Your task to perform on an android device: turn off notifications settings in the gmail app Image 0: 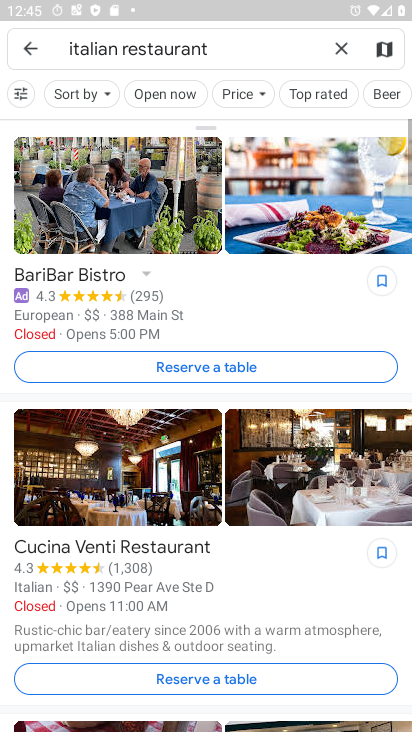
Step 0: press home button
Your task to perform on an android device: turn off notifications settings in the gmail app Image 1: 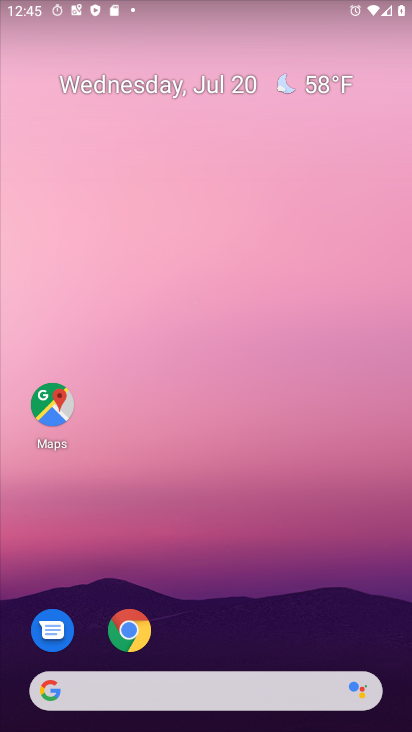
Step 1: drag from (204, 681) to (264, 240)
Your task to perform on an android device: turn off notifications settings in the gmail app Image 2: 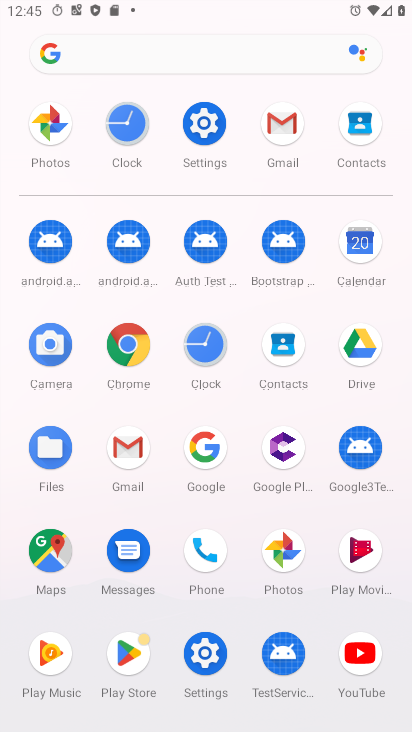
Step 2: click (280, 126)
Your task to perform on an android device: turn off notifications settings in the gmail app Image 3: 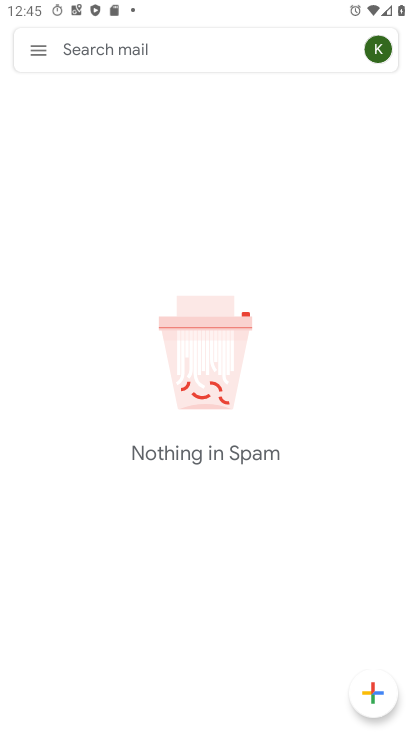
Step 3: click (43, 46)
Your task to perform on an android device: turn off notifications settings in the gmail app Image 4: 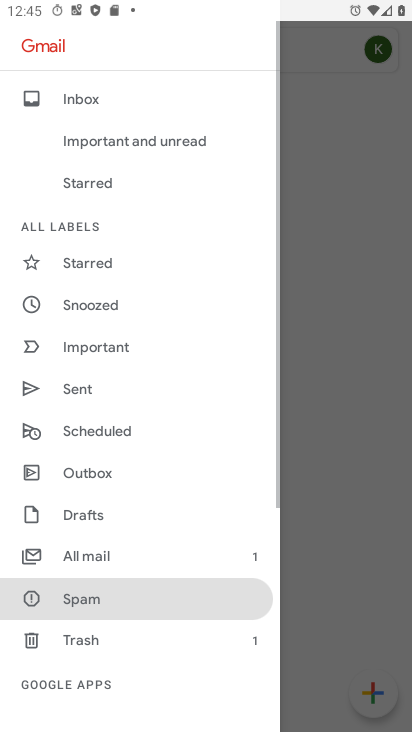
Step 4: drag from (138, 645) to (207, 115)
Your task to perform on an android device: turn off notifications settings in the gmail app Image 5: 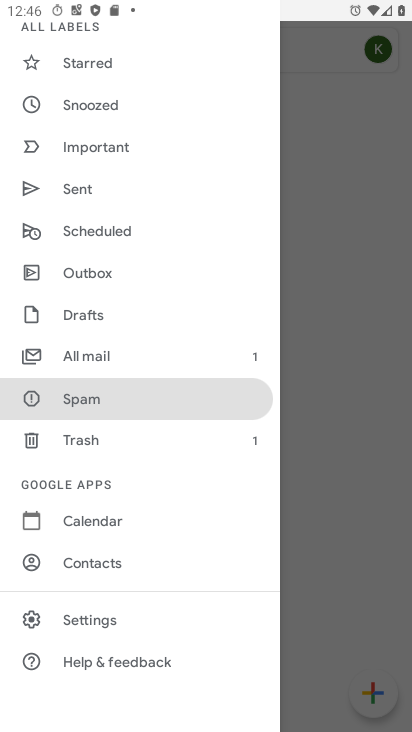
Step 5: click (101, 621)
Your task to perform on an android device: turn off notifications settings in the gmail app Image 6: 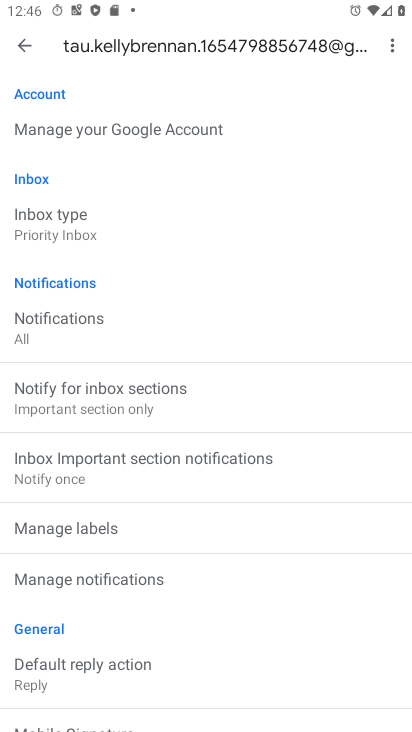
Step 6: click (70, 334)
Your task to perform on an android device: turn off notifications settings in the gmail app Image 7: 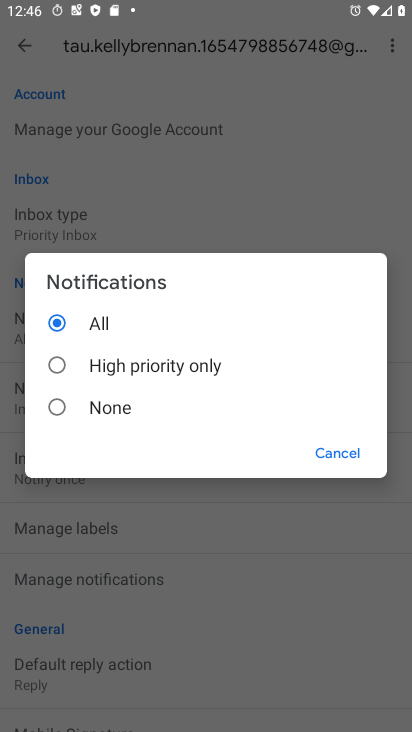
Step 7: click (51, 403)
Your task to perform on an android device: turn off notifications settings in the gmail app Image 8: 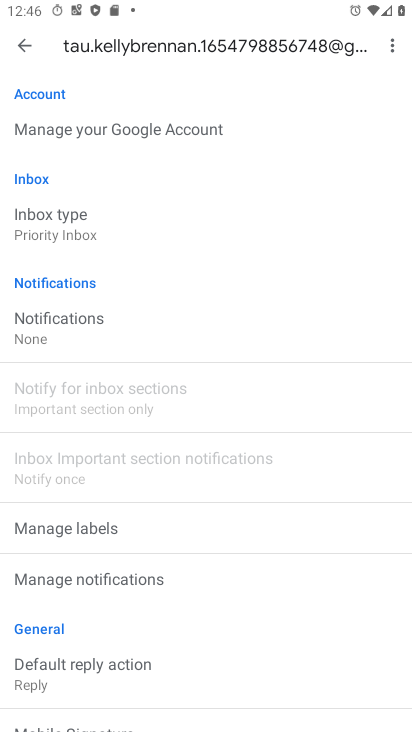
Step 8: task complete